Your task to perform on an android device: toggle translation in the chrome app Image 0: 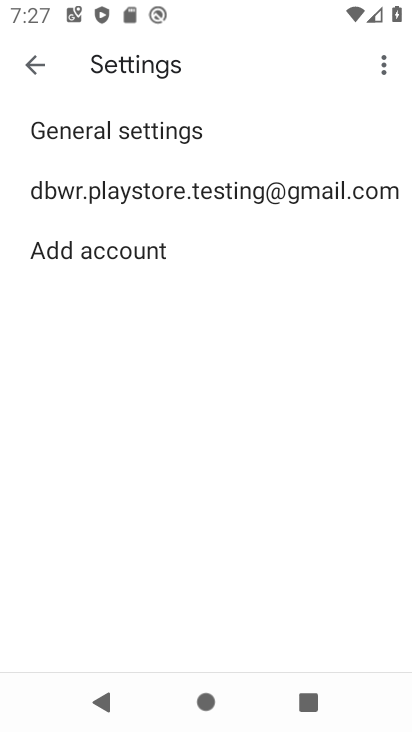
Step 0: press home button
Your task to perform on an android device: toggle translation in the chrome app Image 1: 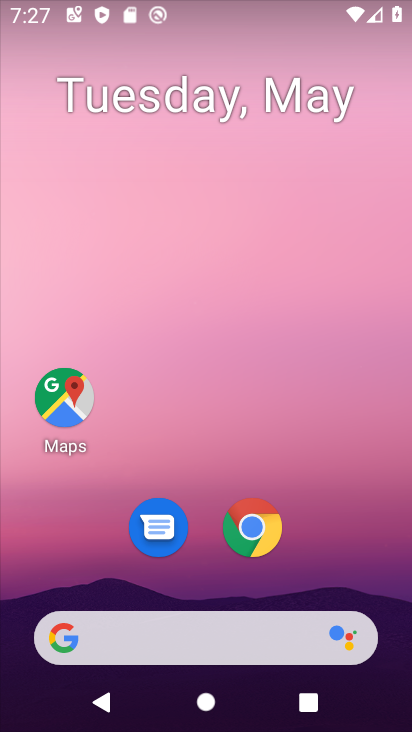
Step 1: click (252, 526)
Your task to perform on an android device: toggle translation in the chrome app Image 2: 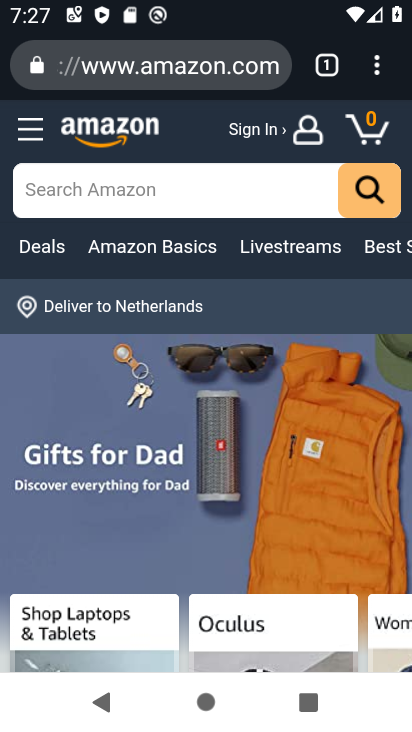
Step 2: click (378, 65)
Your task to perform on an android device: toggle translation in the chrome app Image 3: 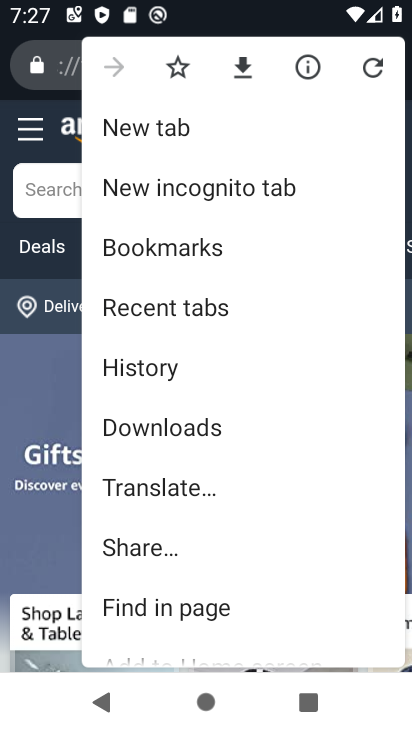
Step 3: drag from (197, 525) to (288, 379)
Your task to perform on an android device: toggle translation in the chrome app Image 4: 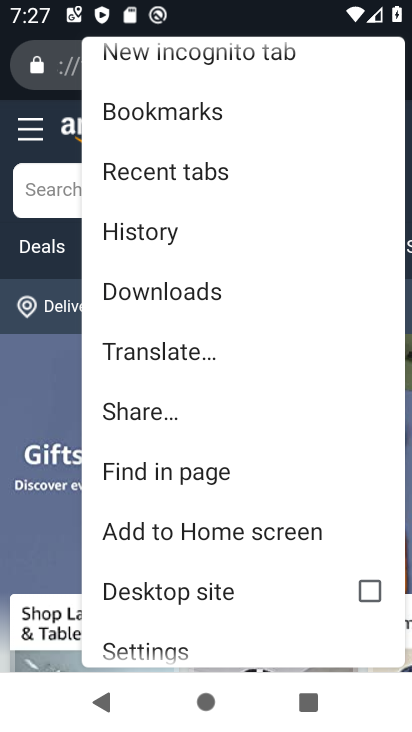
Step 4: drag from (169, 555) to (247, 448)
Your task to perform on an android device: toggle translation in the chrome app Image 5: 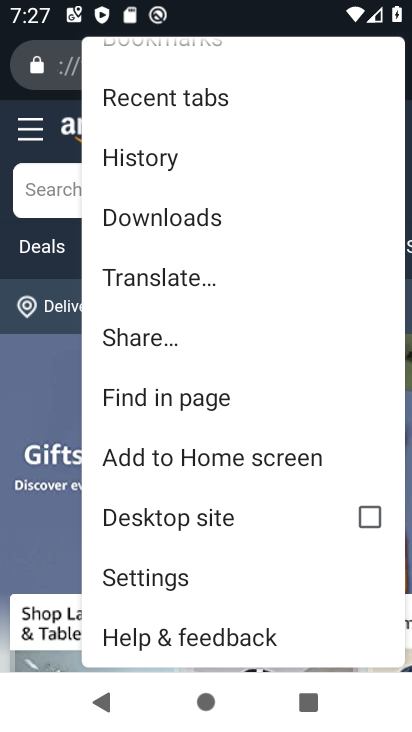
Step 5: click (169, 573)
Your task to perform on an android device: toggle translation in the chrome app Image 6: 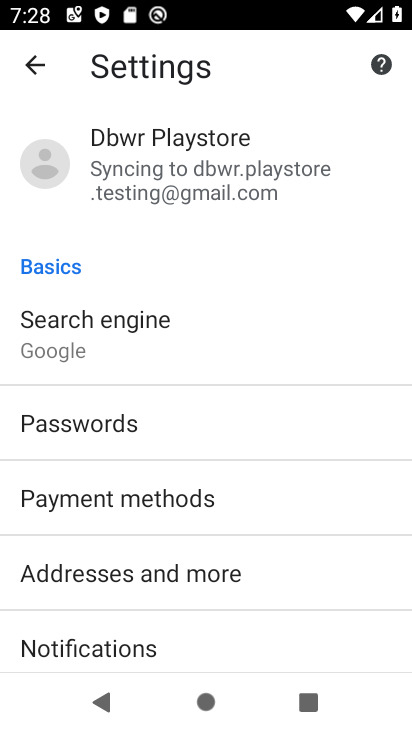
Step 6: drag from (119, 544) to (184, 436)
Your task to perform on an android device: toggle translation in the chrome app Image 7: 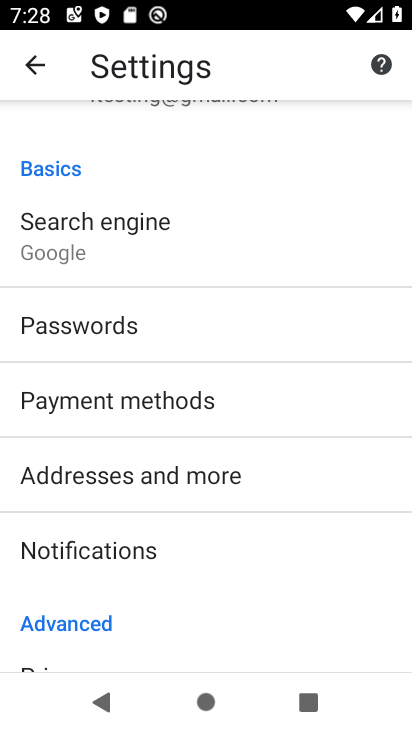
Step 7: drag from (98, 572) to (178, 461)
Your task to perform on an android device: toggle translation in the chrome app Image 8: 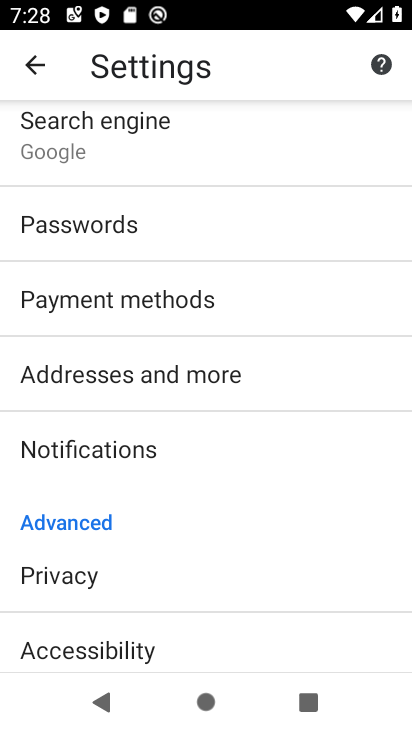
Step 8: drag from (126, 581) to (214, 480)
Your task to perform on an android device: toggle translation in the chrome app Image 9: 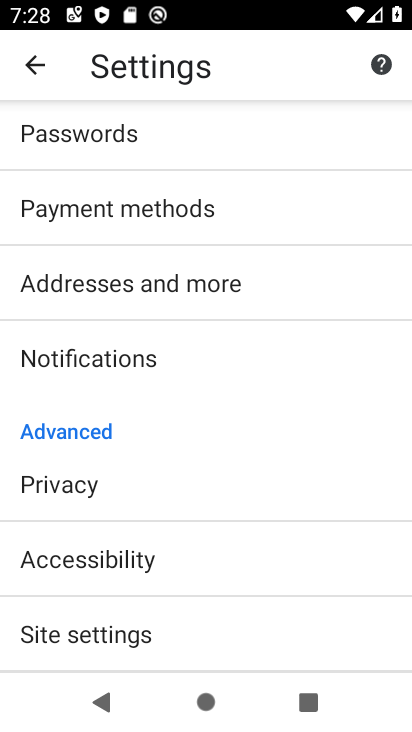
Step 9: drag from (128, 596) to (210, 504)
Your task to perform on an android device: toggle translation in the chrome app Image 10: 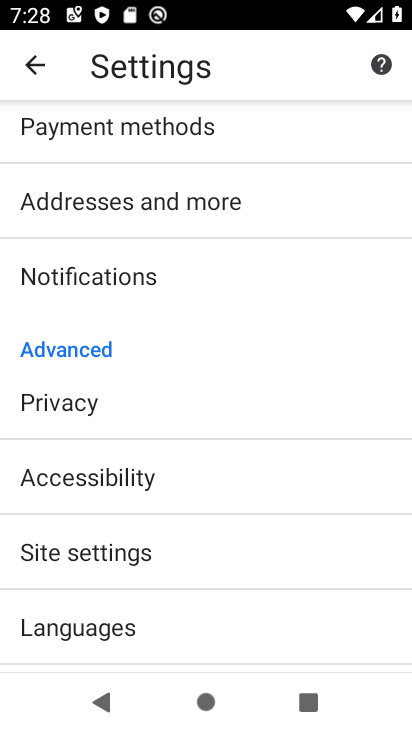
Step 10: click (102, 628)
Your task to perform on an android device: toggle translation in the chrome app Image 11: 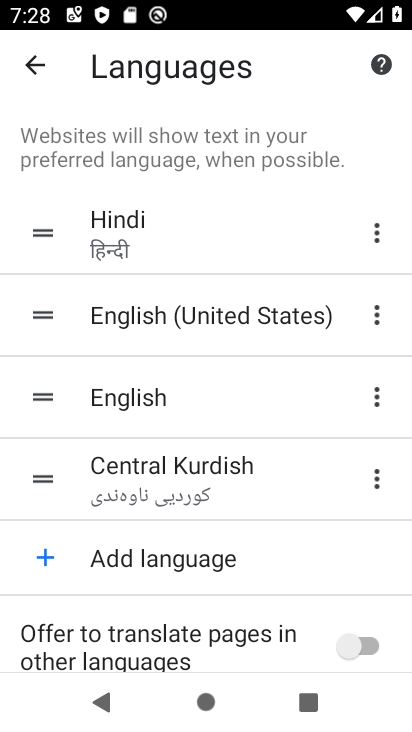
Step 11: click (347, 652)
Your task to perform on an android device: toggle translation in the chrome app Image 12: 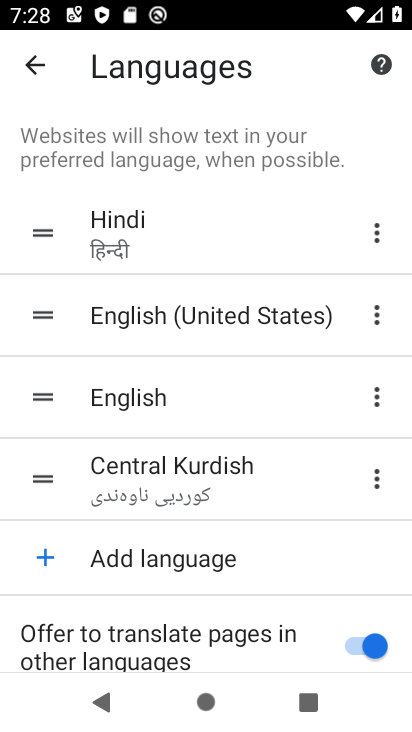
Step 12: task complete